Your task to perform on an android device: Search for seafood restaurants on Google Maps Image 0: 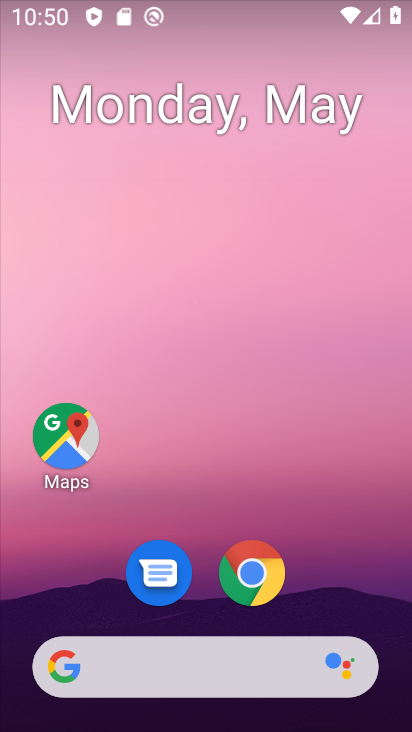
Step 0: click (61, 441)
Your task to perform on an android device: Search for seafood restaurants on Google Maps Image 1: 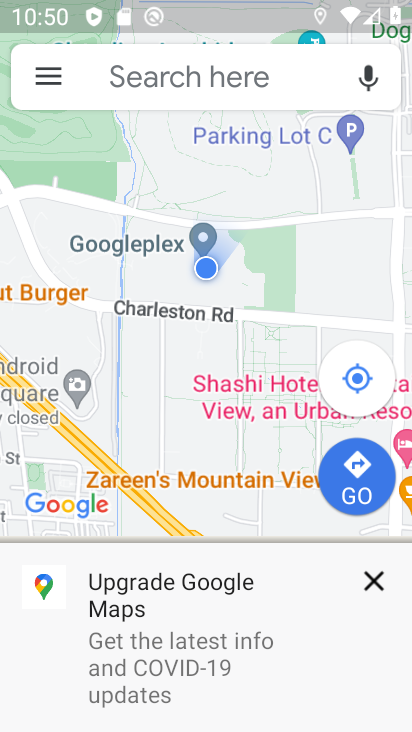
Step 1: click (179, 77)
Your task to perform on an android device: Search for seafood restaurants on Google Maps Image 2: 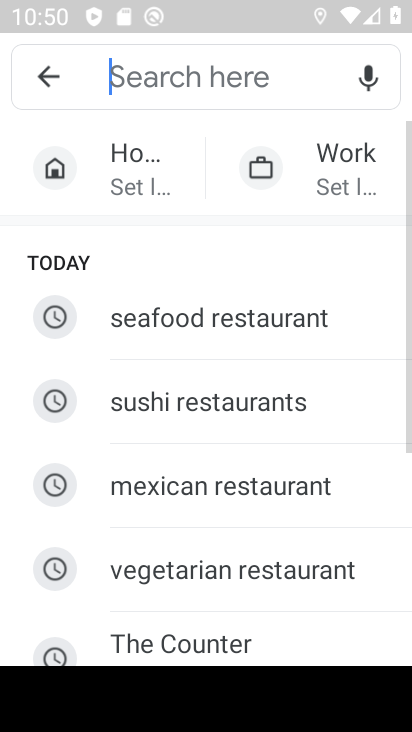
Step 2: click (237, 323)
Your task to perform on an android device: Search for seafood restaurants on Google Maps Image 3: 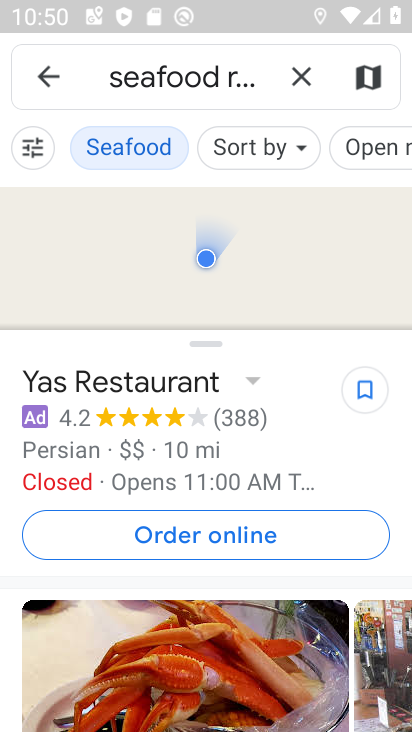
Step 3: task complete